Your task to perform on an android device: turn off improve location accuracy Image 0: 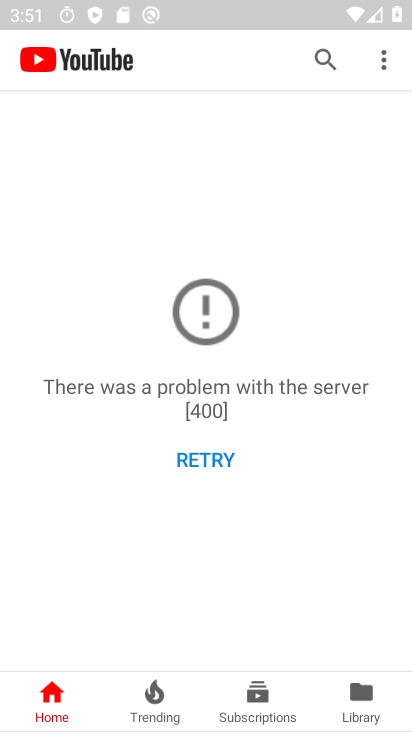
Step 0: press home button
Your task to perform on an android device: turn off improve location accuracy Image 1: 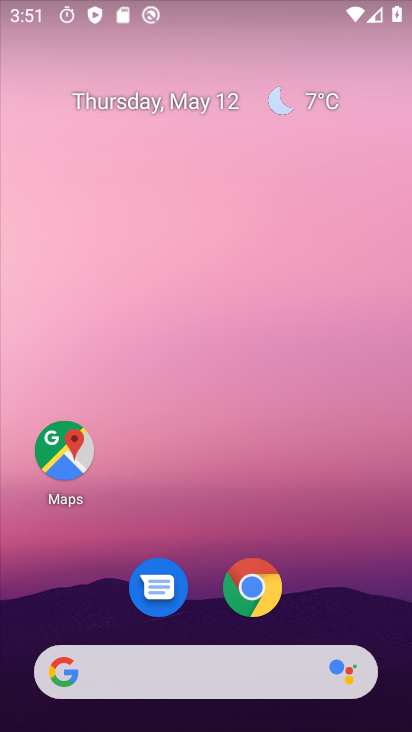
Step 1: drag from (139, 630) to (255, 120)
Your task to perform on an android device: turn off improve location accuracy Image 2: 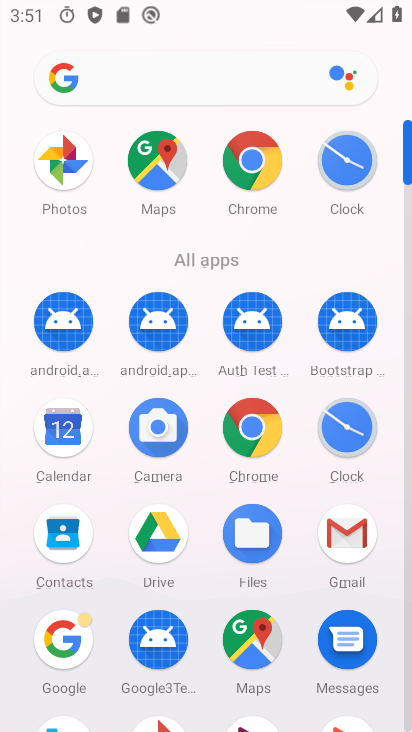
Step 2: drag from (205, 643) to (275, 327)
Your task to perform on an android device: turn off improve location accuracy Image 3: 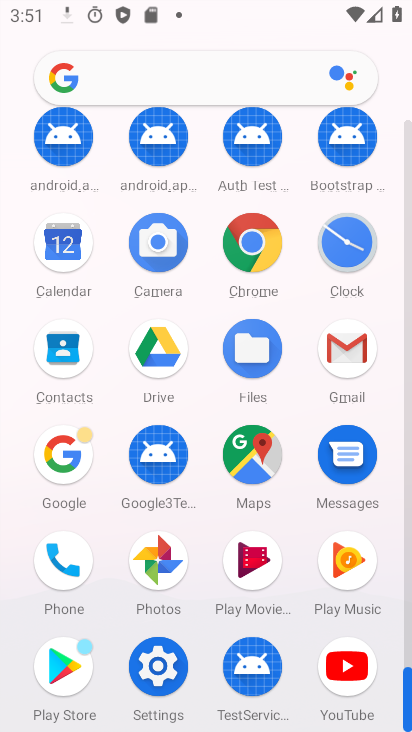
Step 3: click (173, 663)
Your task to perform on an android device: turn off improve location accuracy Image 4: 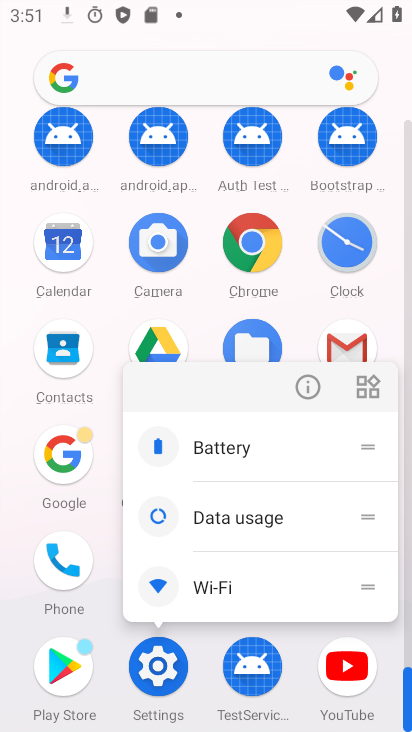
Step 4: click (168, 662)
Your task to perform on an android device: turn off improve location accuracy Image 5: 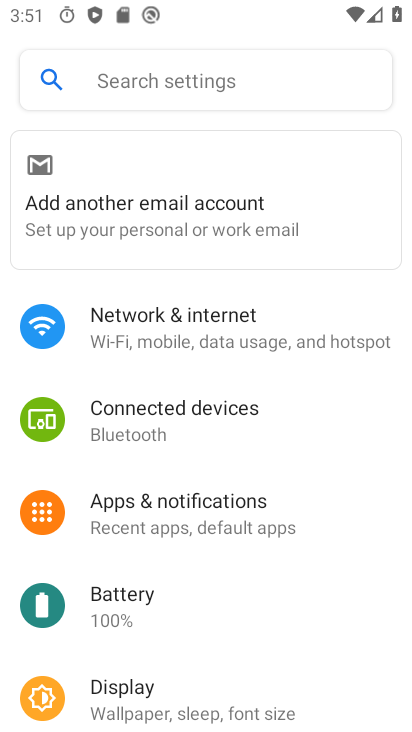
Step 5: drag from (169, 657) to (260, 207)
Your task to perform on an android device: turn off improve location accuracy Image 6: 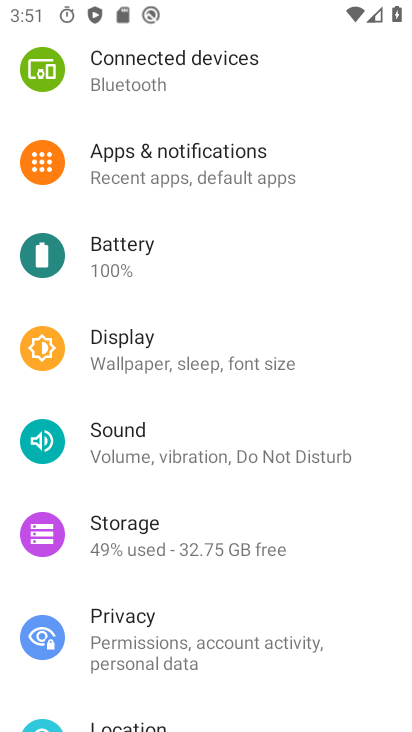
Step 6: drag from (198, 718) to (330, 260)
Your task to perform on an android device: turn off improve location accuracy Image 7: 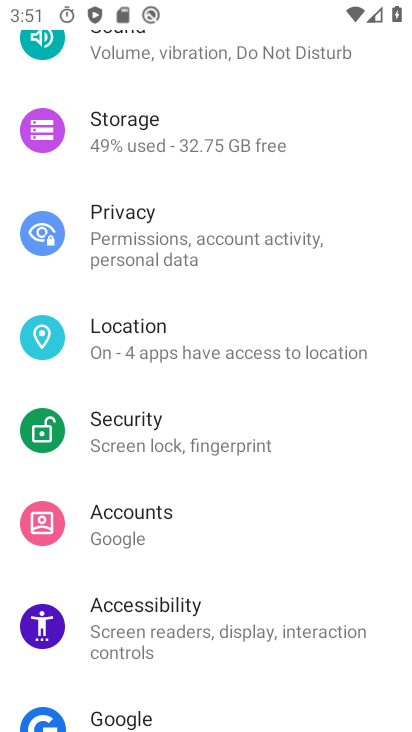
Step 7: click (174, 366)
Your task to perform on an android device: turn off improve location accuracy Image 8: 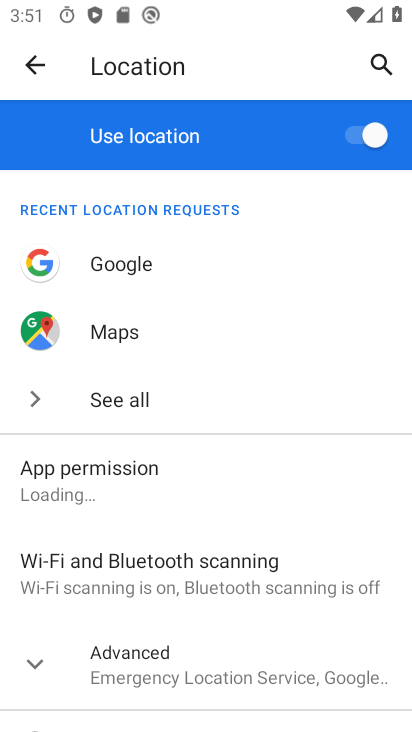
Step 8: click (204, 690)
Your task to perform on an android device: turn off improve location accuracy Image 9: 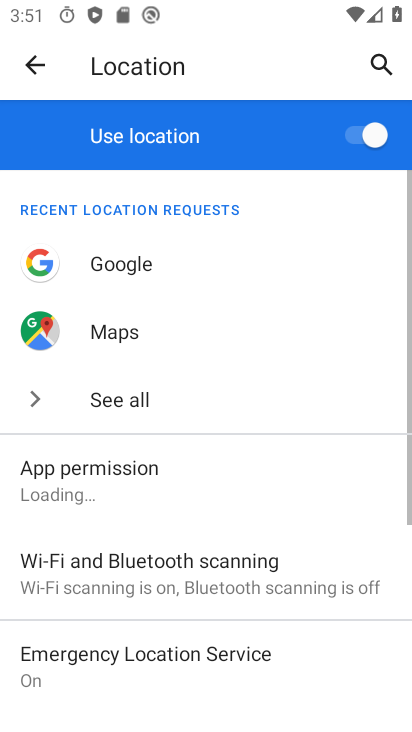
Step 9: drag from (207, 672) to (339, 178)
Your task to perform on an android device: turn off improve location accuracy Image 10: 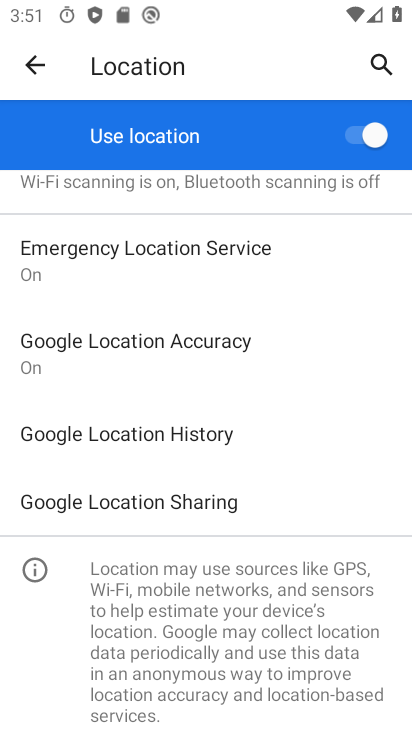
Step 10: click (223, 345)
Your task to perform on an android device: turn off improve location accuracy Image 11: 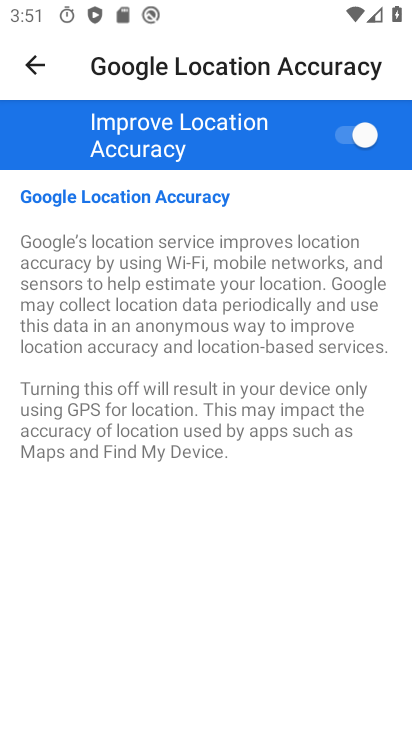
Step 11: click (348, 133)
Your task to perform on an android device: turn off improve location accuracy Image 12: 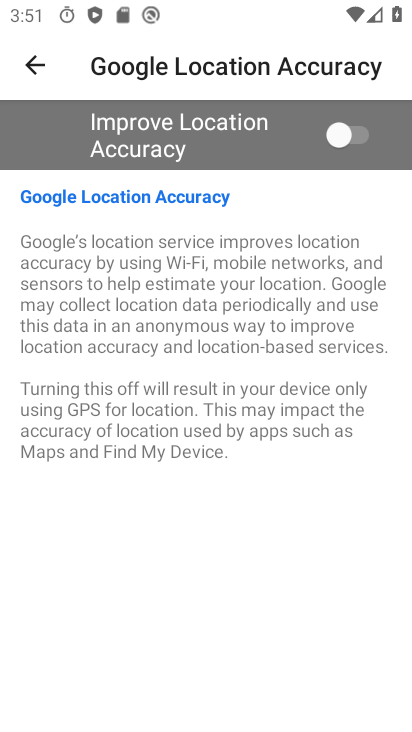
Step 12: task complete